Your task to perform on an android device: Open the map Image 0: 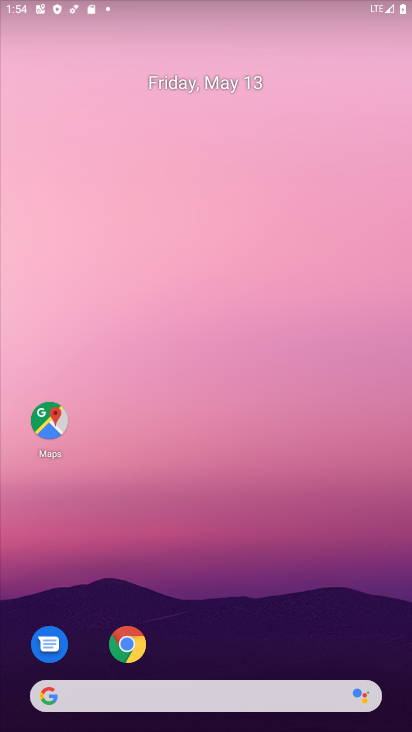
Step 0: drag from (367, 620) to (275, 86)
Your task to perform on an android device: Open the map Image 1: 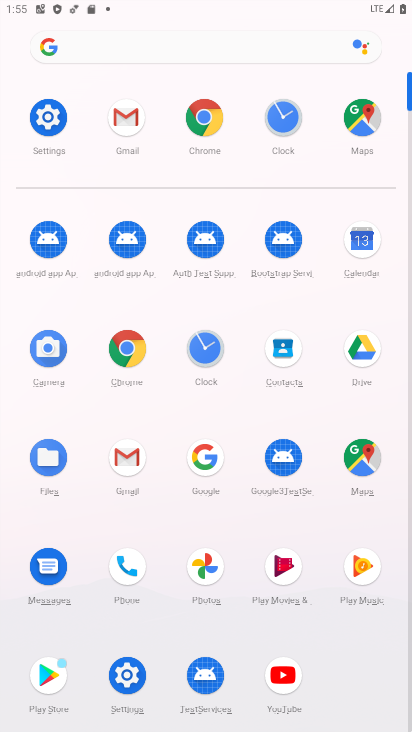
Step 1: click (353, 450)
Your task to perform on an android device: Open the map Image 2: 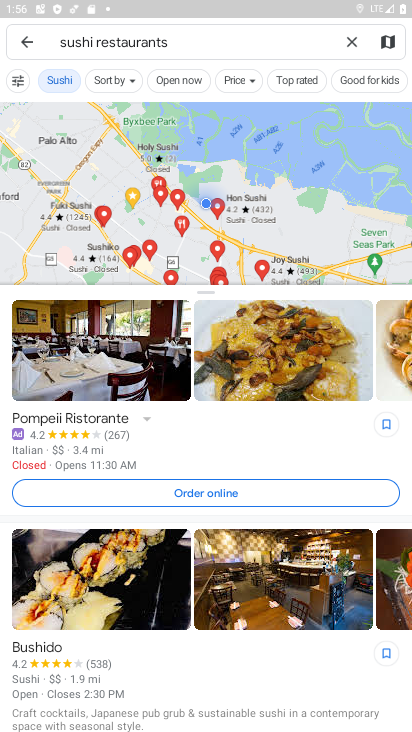
Step 2: click (354, 41)
Your task to perform on an android device: Open the map Image 3: 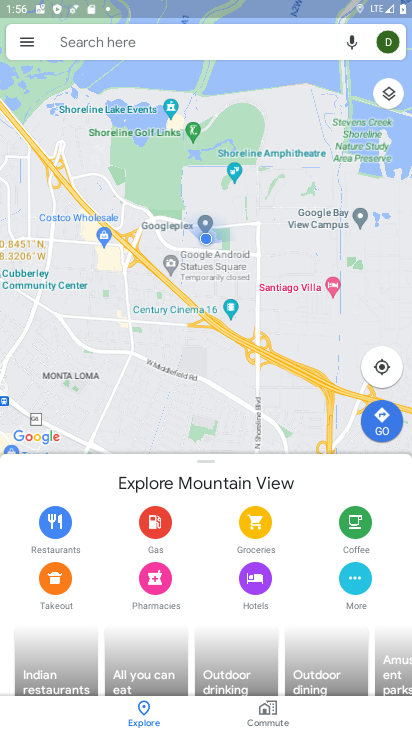
Step 3: task complete